Your task to perform on an android device: Search for Mexican restaurants on Maps Image 0: 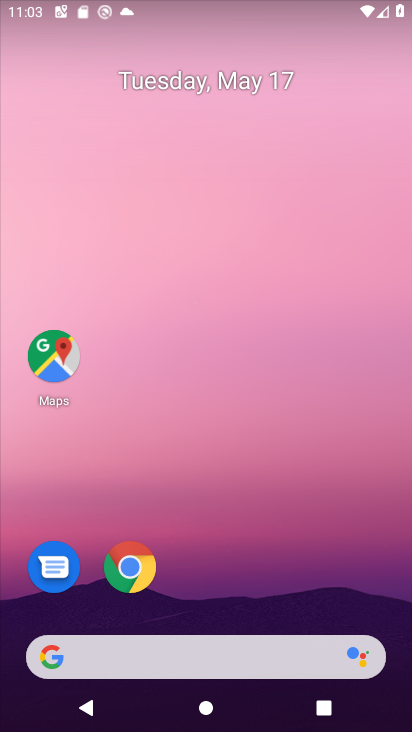
Step 0: click (68, 356)
Your task to perform on an android device: Search for Mexican restaurants on Maps Image 1: 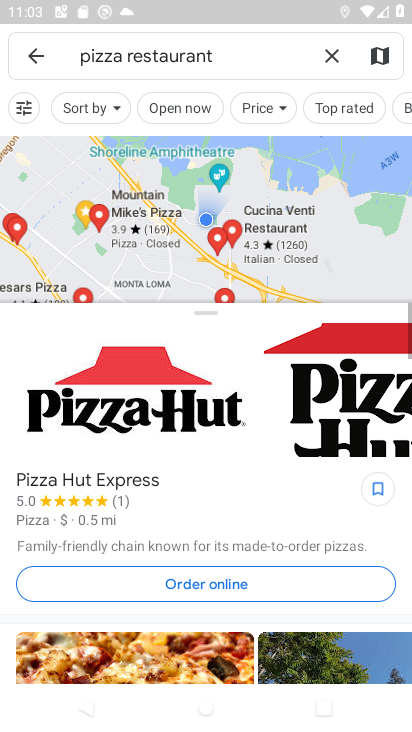
Step 1: click (335, 54)
Your task to perform on an android device: Search for Mexican restaurants on Maps Image 2: 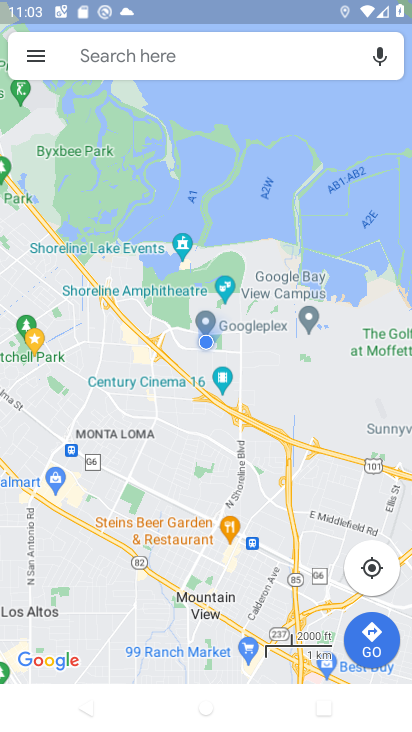
Step 2: click (209, 81)
Your task to perform on an android device: Search for Mexican restaurants on Maps Image 3: 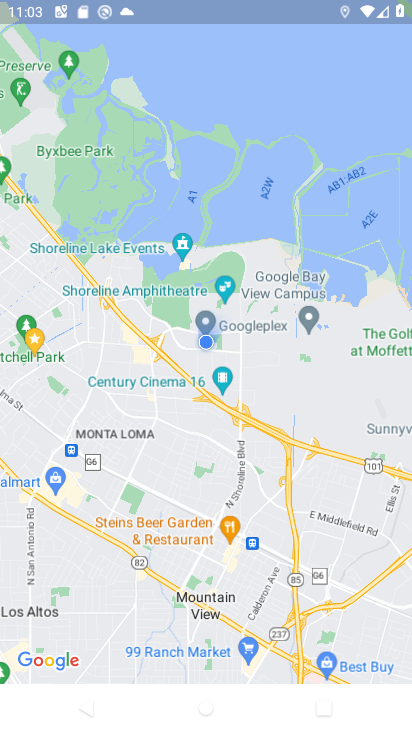
Step 3: press back button
Your task to perform on an android device: Search for Mexican restaurants on Maps Image 4: 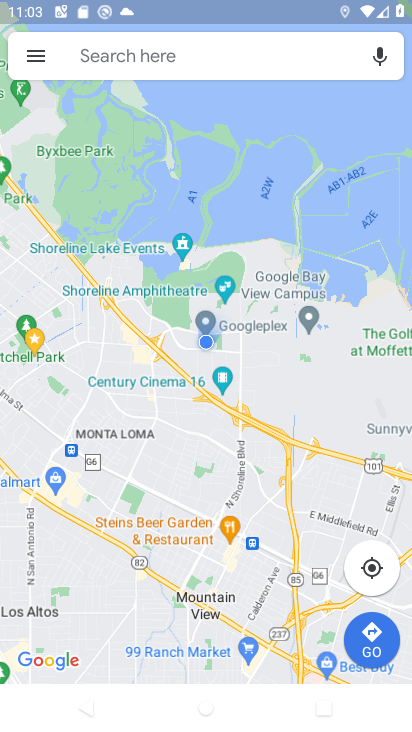
Step 4: click (149, 58)
Your task to perform on an android device: Search for Mexican restaurants on Maps Image 5: 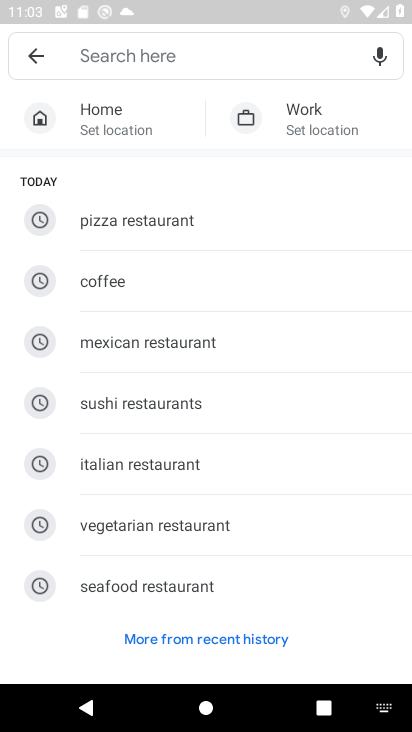
Step 5: click (140, 358)
Your task to perform on an android device: Search for Mexican restaurants on Maps Image 6: 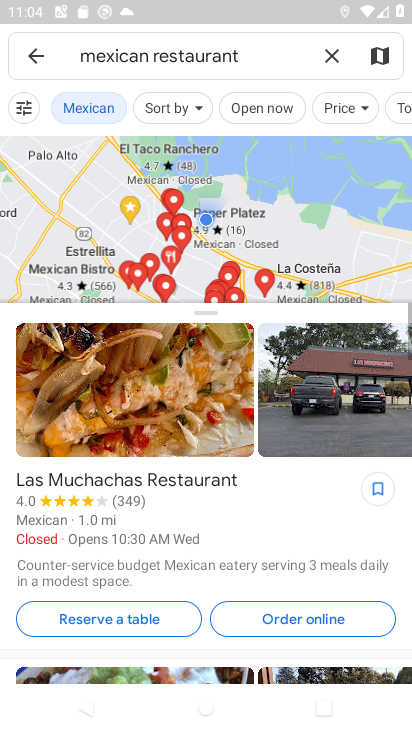
Step 6: task complete